Your task to perform on an android device: Open Android settings Image 0: 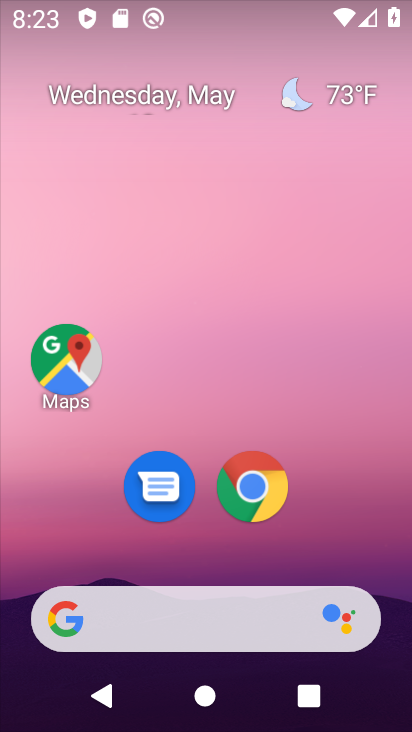
Step 0: drag from (403, 624) to (305, 91)
Your task to perform on an android device: Open Android settings Image 1: 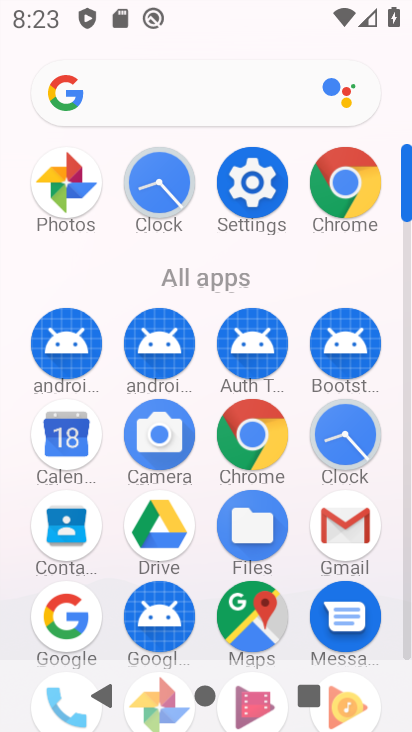
Step 1: click (407, 642)
Your task to perform on an android device: Open Android settings Image 2: 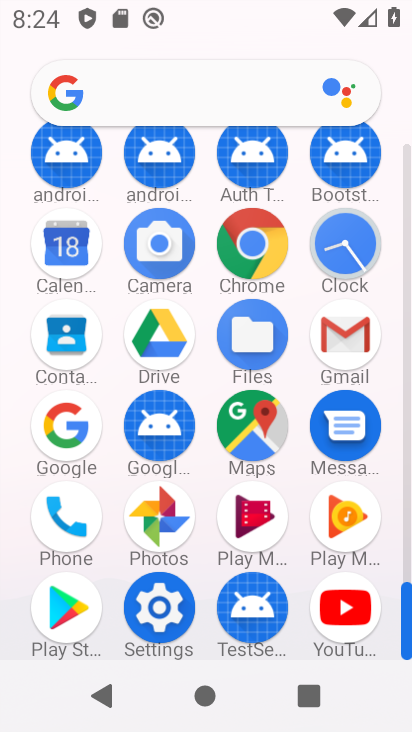
Step 2: click (159, 609)
Your task to perform on an android device: Open Android settings Image 3: 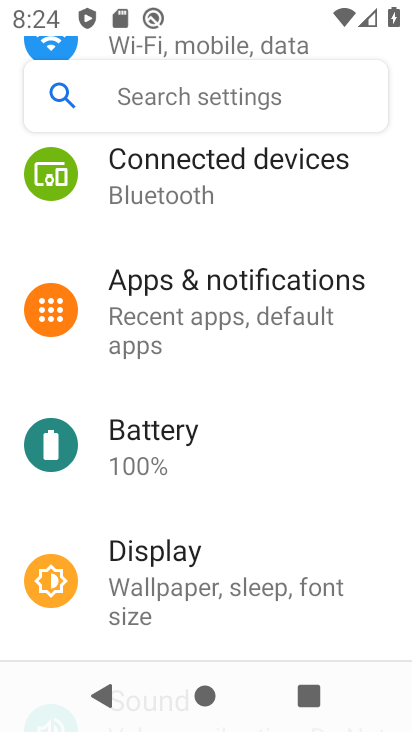
Step 3: drag from (316, 595) to (294, 370)
Your task to perform on an android device: Open Android settings Image 4: 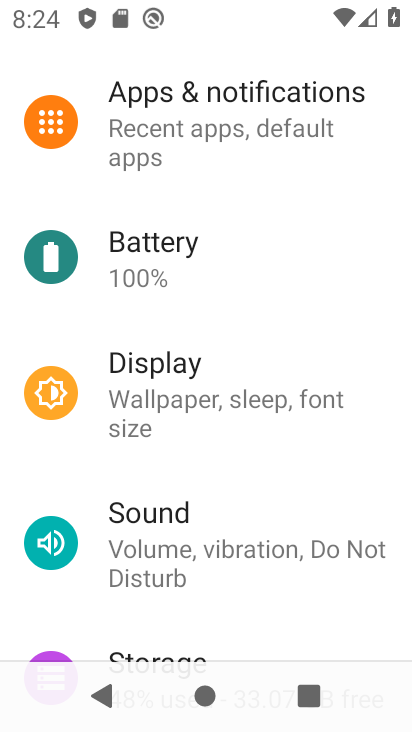
Step 4: drag from (352, 593) to (329, 353)
Your task to perform on an android device: Open Android settings Image 5: 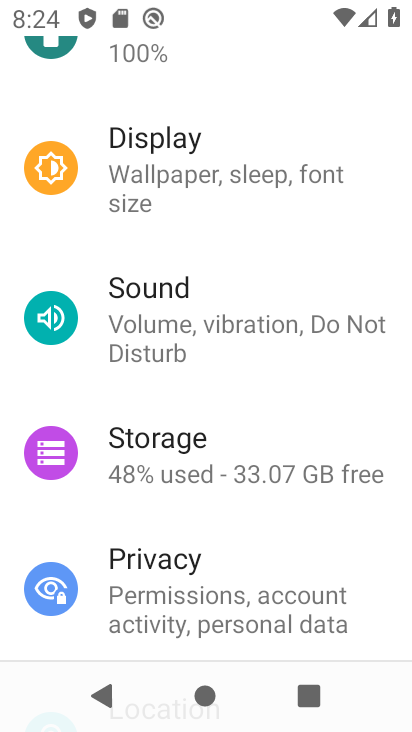
Step 5: drag from (341, 559) to (318, 313)
Your task to perform on an android device: Open Android settings Image 6: 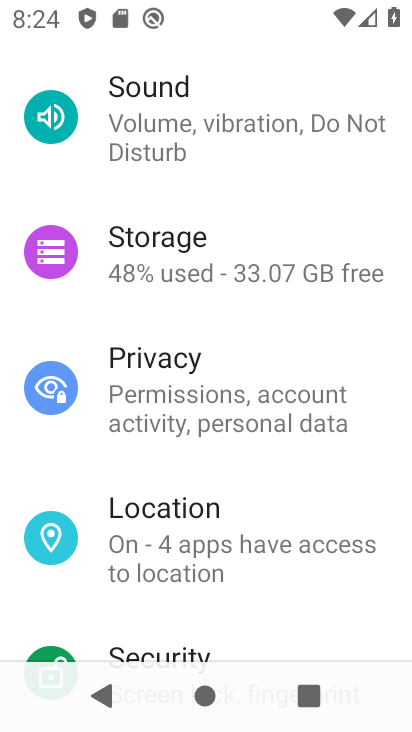
Step 6: drag from (326, 565) to (292, 192)
Your task to perform on an android device: Open Android settings Image 7: 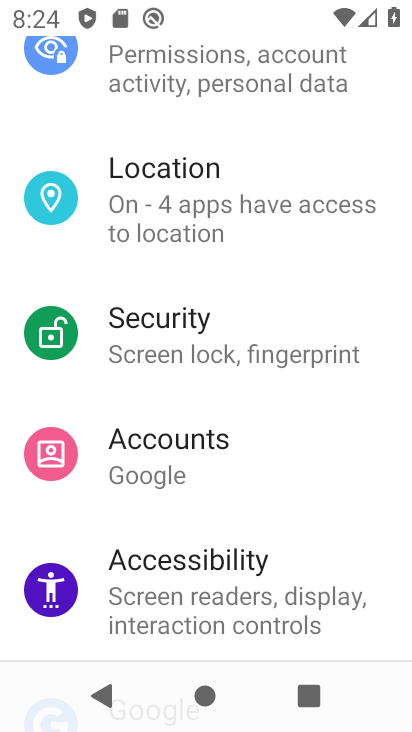
Step 7: drag from (309, 528) to (299, 258)
Your task to perform on an android device: Open Android settings Image 8: 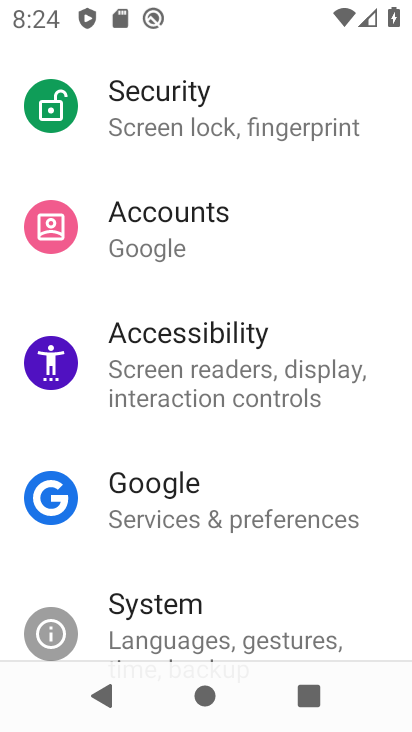
Step 8: drag from (342, 619) to (316, 287)
Your task to perform on an android device: Open Android settings Image 9: 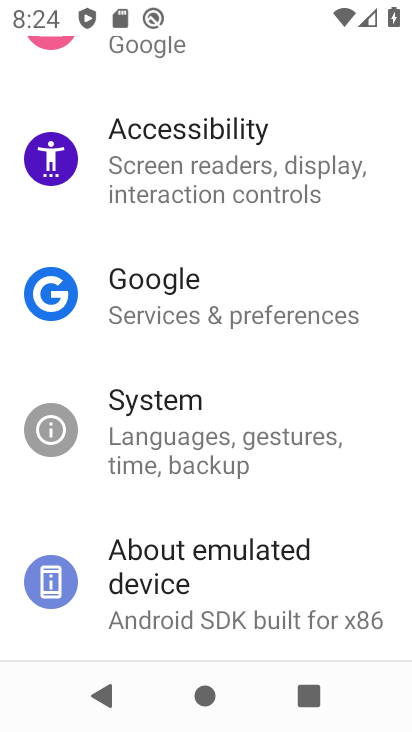
Step 9: drag from (248, 587) to (263, 250)
Your task to perform on an android device: Open Android settings Image 10: 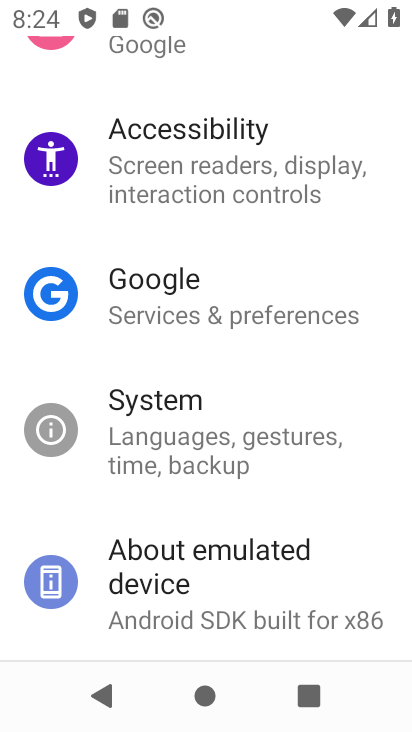
Step 10: click (192, 607)
Your task to perform on an android device: Open Android settings Image 11: 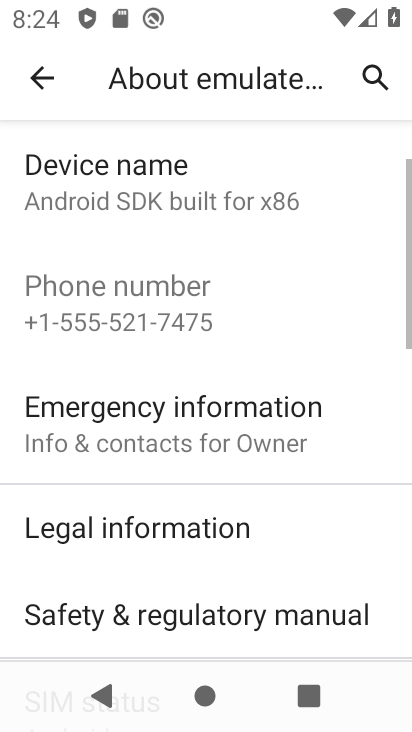
Step 11: task complete